Your task to perform on an android device: manage bookmarks in the chrome app Image 0: 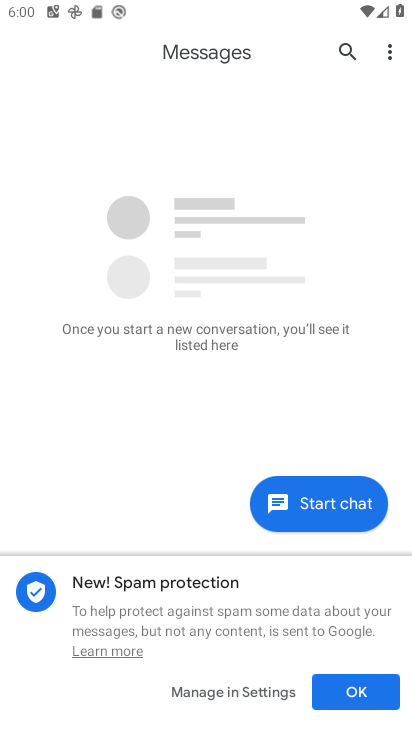
Step 0: press home button
Your task to perform on an android device: manage bookmarks in the chrome app Image 1: 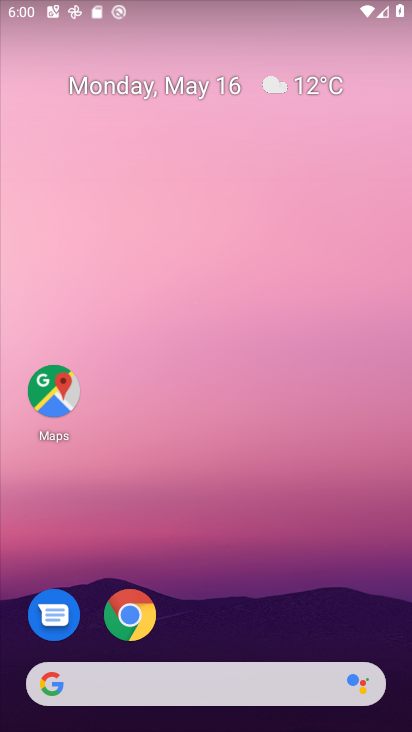
Step 1: drag from (196, 645) to (357, 0)
Your task to perform on an android device: manage bookmarks in the chrome app Image 2: 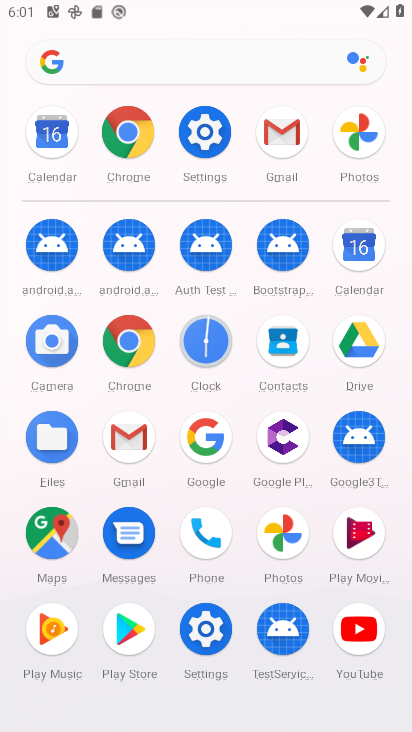
Step 2: click (128, 162)
Your task to perform on an android device: manage bookmarks in the chrome app Image 3: 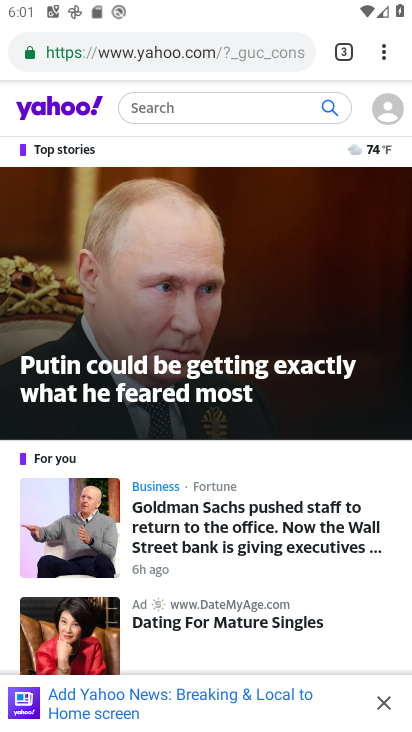
Step 3: click (375, 57)
Your task to perform on an android device: manage bookmarks in the chrome app Image 4: 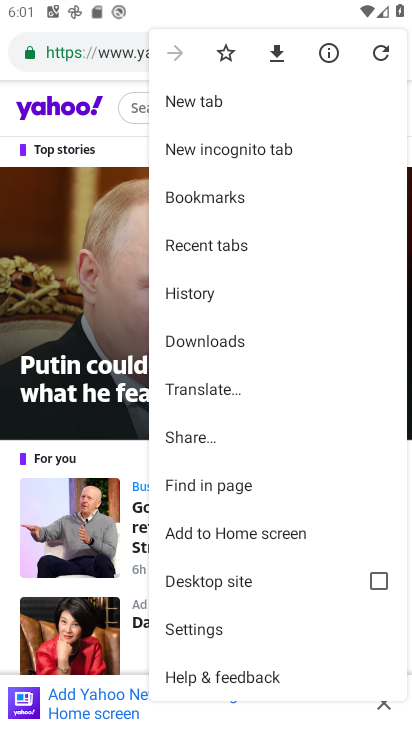
Step 4: click (217, 201)
Your task to perform on an android device: manage bookmarks in the chrome app Image 5: 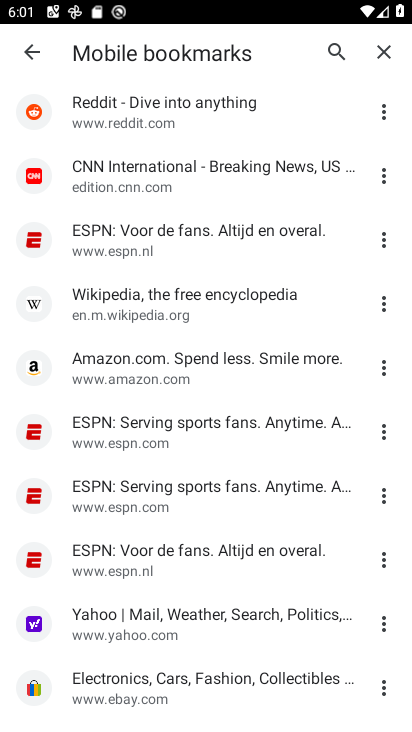
Step 5: click (384, 115)
Your task to perform on an android device: manage bookmarks in the chrome app Image 6: 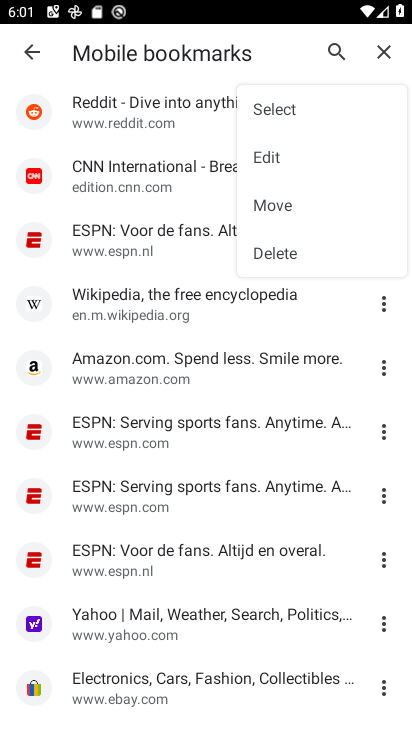
Step 6: click (290, 249)
Your task to perform on an android device: manage bookmarks in the chrome app Image 7: 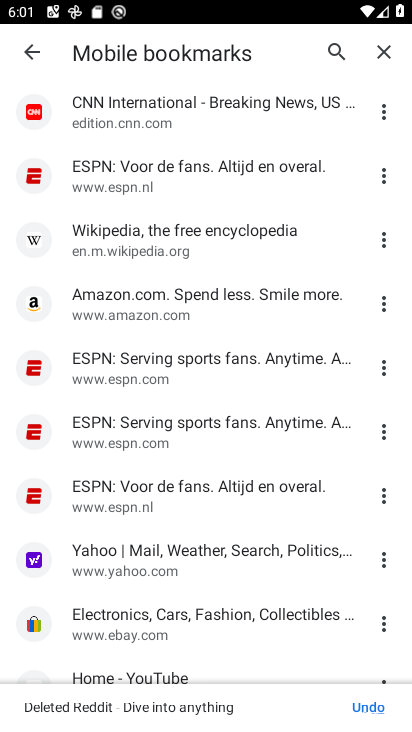
Step 7: task complete